Your task to perform on an android device: turn off data saver in the chrome app Image 0: 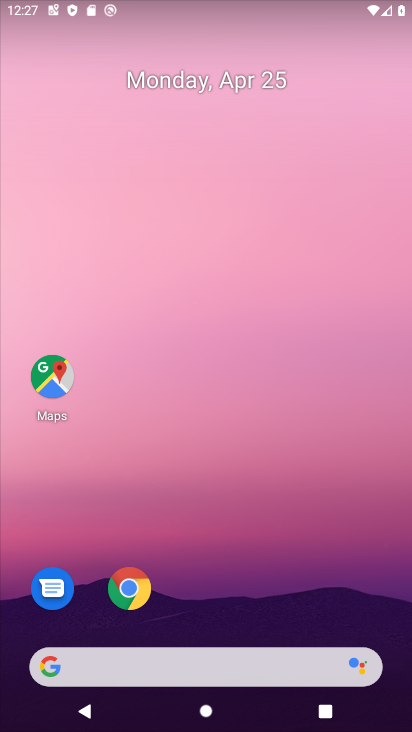
Step 0: click (397, 239)
Your task to perform on an android device: turn off data saver in the chrome app Image 1: 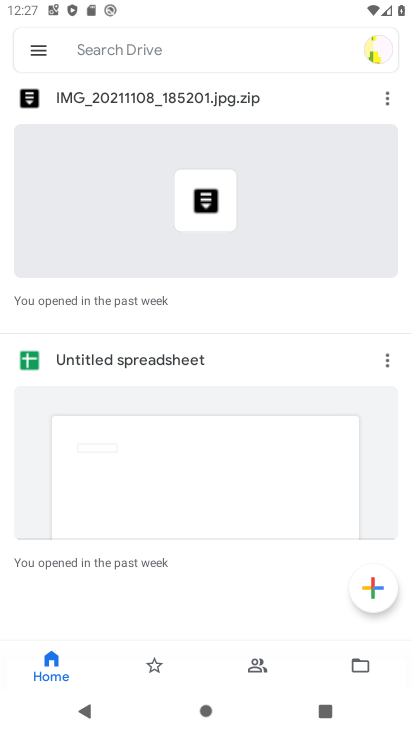
Step 1: press back button
Your task to perform on an android device: turn off data saver in the chrome app Image 2: 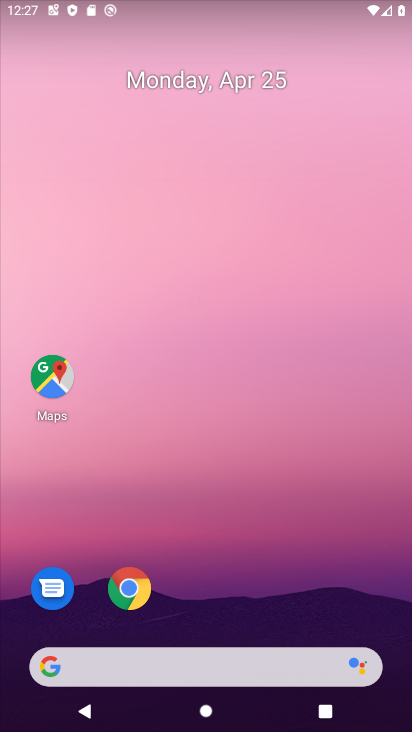
Step 2: drag from (0, 291) to (410, 268)
Your task to perform on an android device: turn off data saver in the chrome app Image 3: 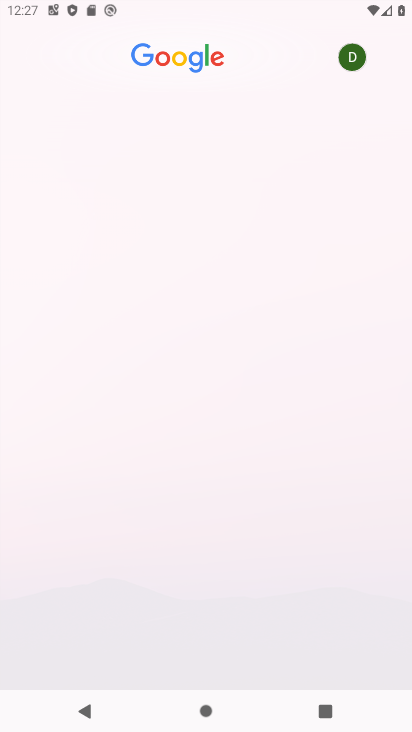
Step 3: press home button
Your task to perform on an android device: turn off data saver in the chrome app Image 4: 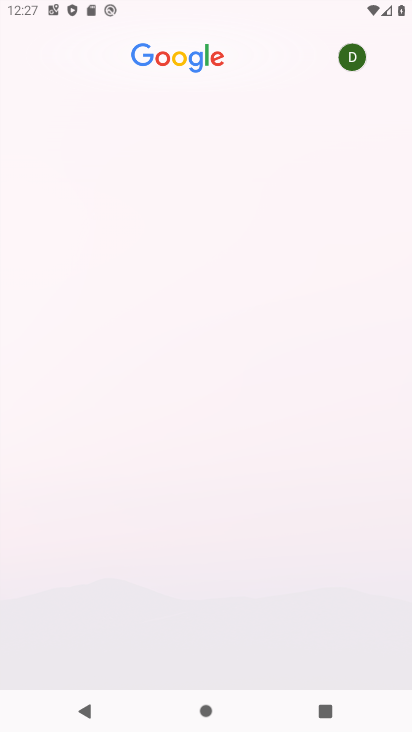
Step 4: click (410, 268)
Your task to perform on an android device: turn off data saver in the chrome app Image 5: 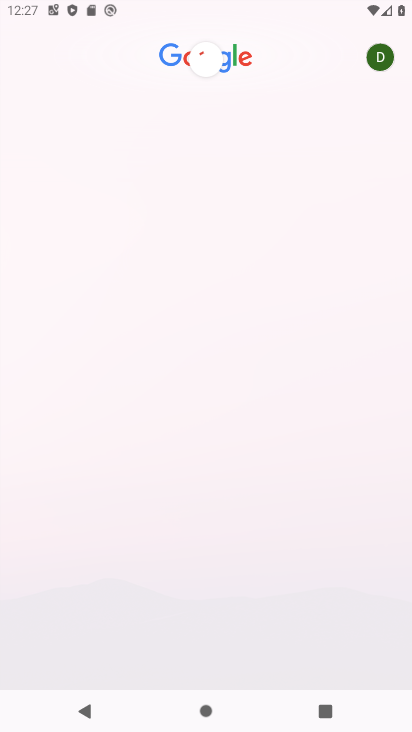
Step 5: press home button
Your task to perform on an android device: turn off data saver in the chrome app Image 6: 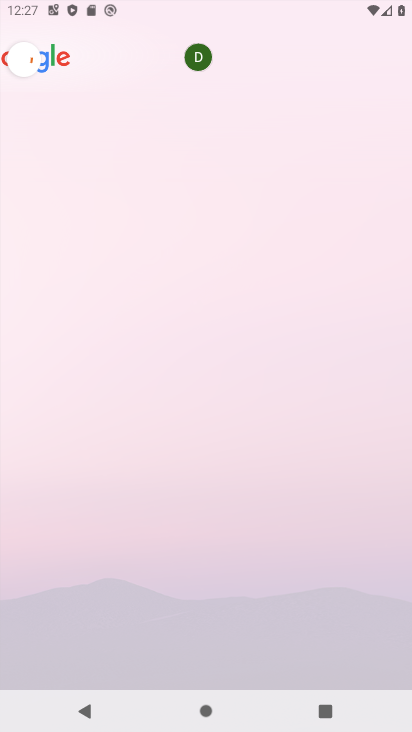
Step 6: drag from (410, 268) to (383, 456)
Your task to perform on an android device: turn off data saver in the chrome app Image 7: 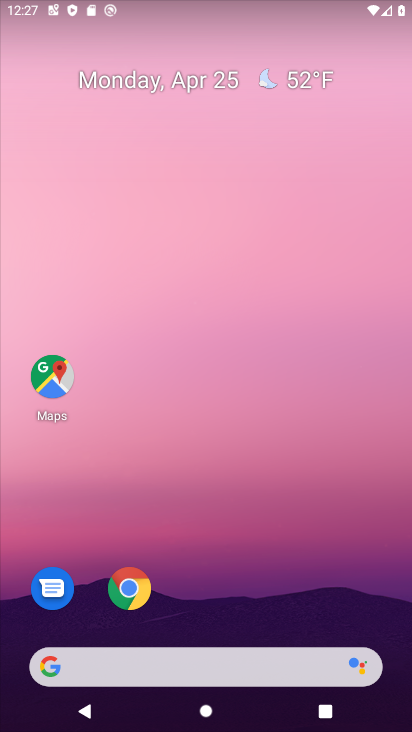
Step 7: click (125, 597)
Your task to perform on an android device: turn off data saver in the chrome app Image 8: 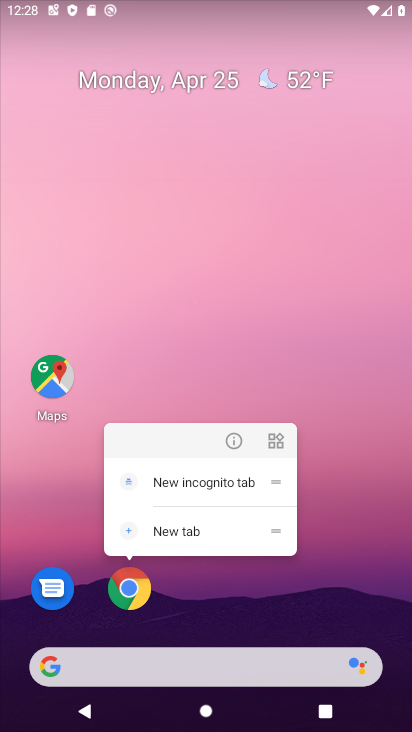
Step 8: click (137, 599)
Your task to perform on an android device: turn off data saver in the chrome app Image 9: 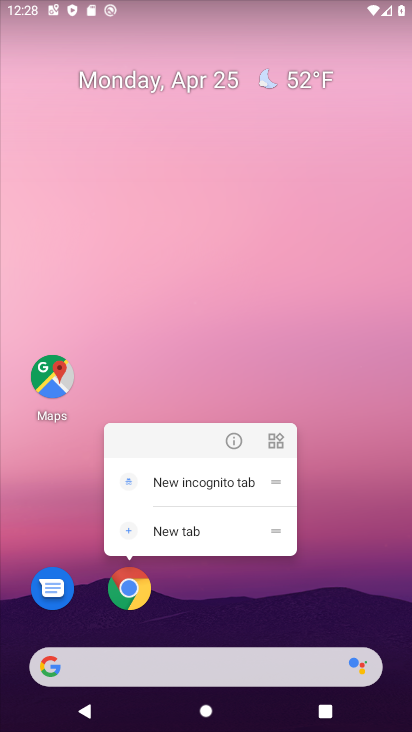
Step 9: click (137, 586)
Your task to perform on an android device: turn off data saver in the chrome app Image 10: 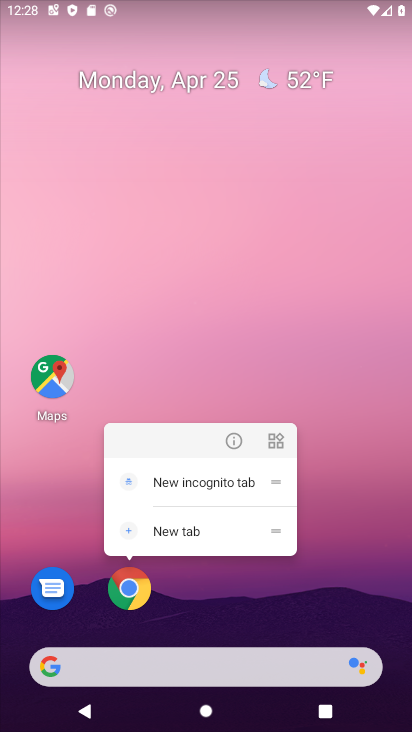
Step 10: click (132, 591)
Your task to perform on an android device: turn off data saver in the chrome app Image 11: 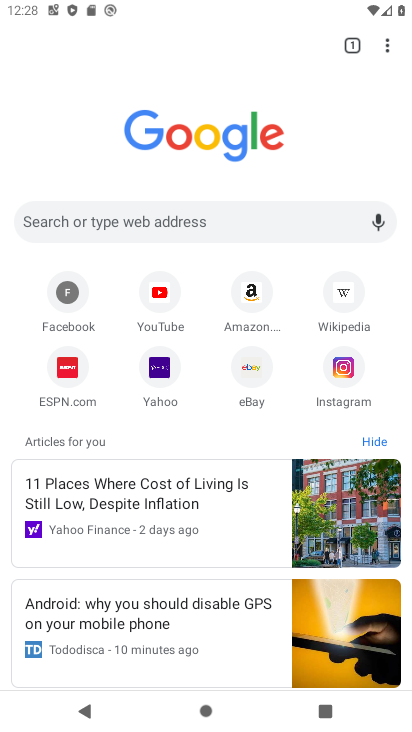
Step 11: click (383, 44)
Your task to perform on an android device: turn off data saver in the chrome app Image 12: 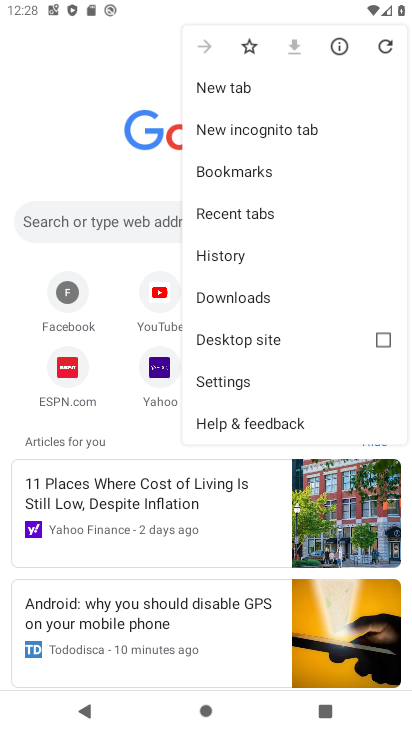
Step 12: click (292, 381)
Your task to perform on an android device: turn off data saver in the chrome app Image 13: 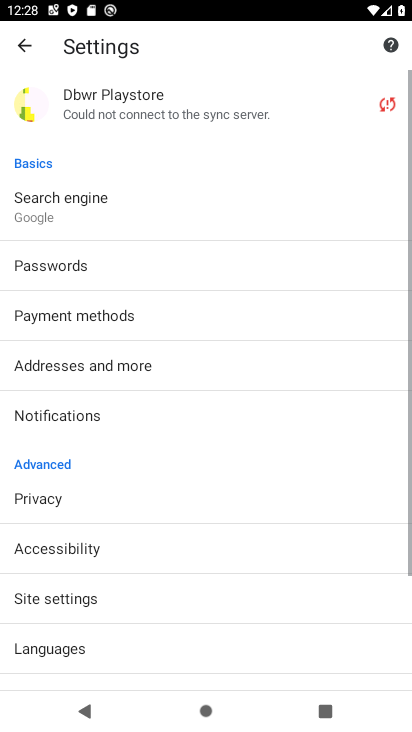
Step 13: drag from (152, 605) to (261, 204)
Your task to perform on an android device: turn off data saver in the chrome app Image 14: 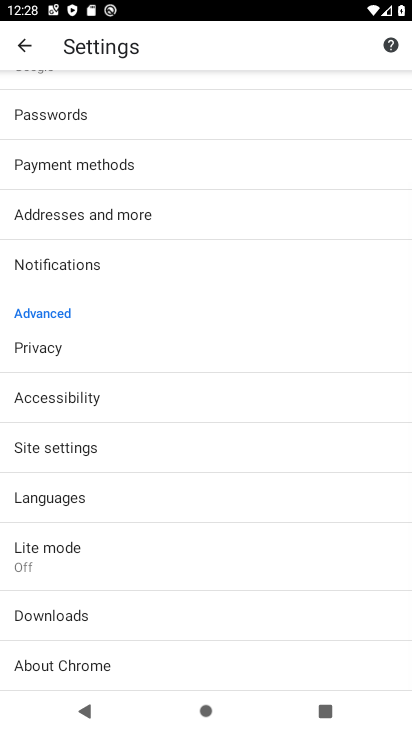
Step 14: click (85, 563)
Your task to perform on an android device: turn off data saver in the chrome app Image 15: 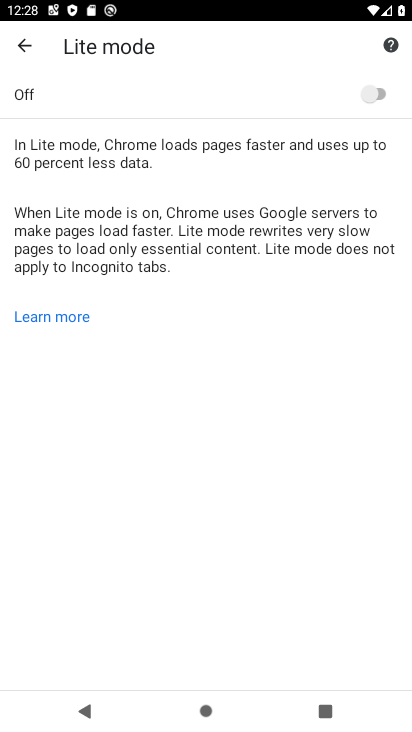
Step 15: task complete